Your task to perform on an android device: find photos in the google photos app Image 0: 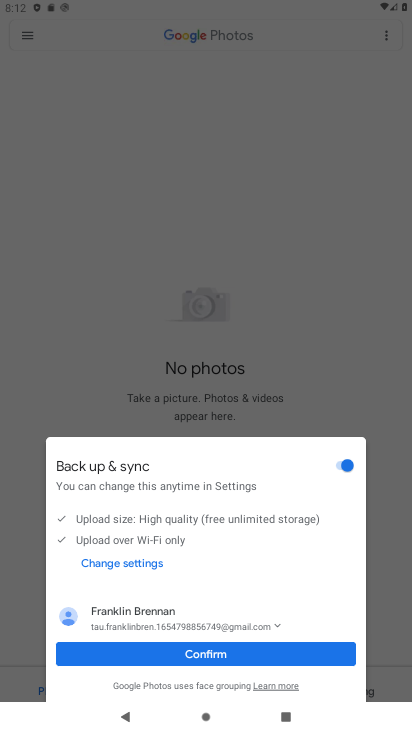
Step 0: click (214, 654)
Your task to perform on an android device: find photos in the google photos app Image 1: 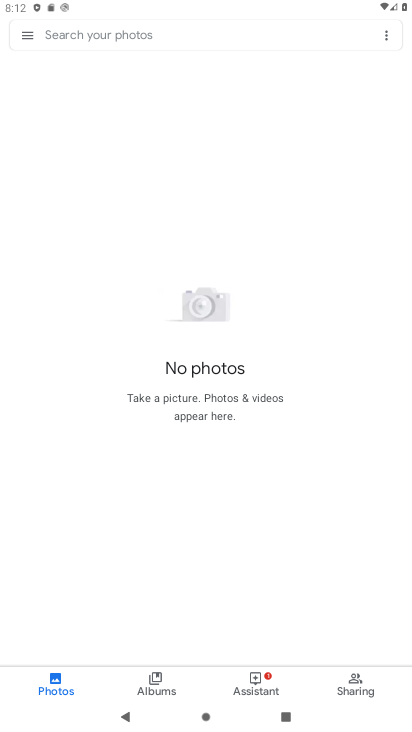
Step 1: task complete